Your task to perform on an android device: Open Google Image 0: 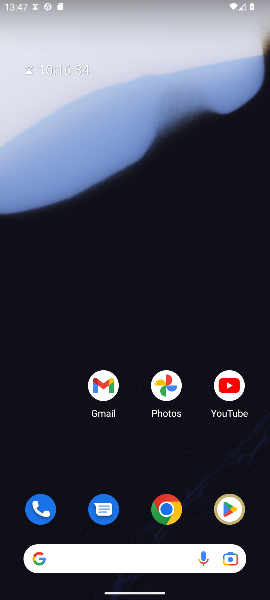
Step 0: press home button
Your task to perform on an android device: Open Google Image 1: 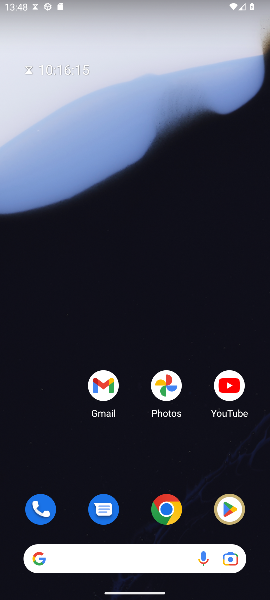
Step 1: drag from (127, 514) to (191, 173)
Your task to perform on an android device: Open Google Image 2: 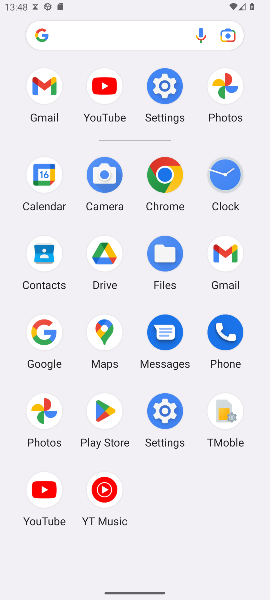
Step 2: click (42, 331)
Your task to perform on an android device: Open Google Image 3: 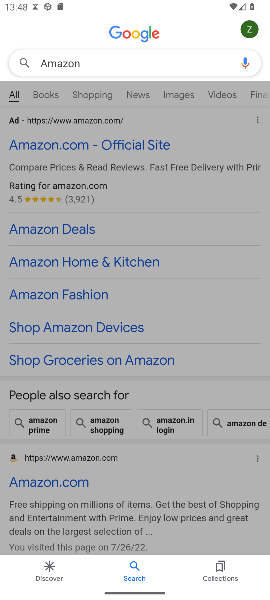
Step 3: click (102, 61)
Your task to perform on an android device: Open Google Image 4: 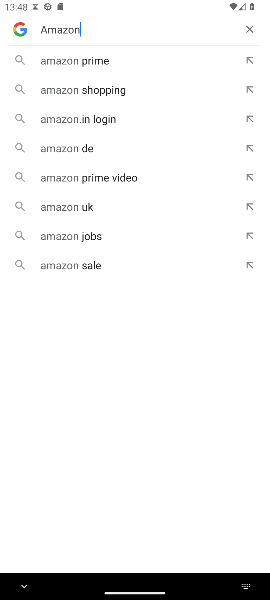
Step 4: click (247, 31)
Your task to perform on an android device: Open Google Image 5: 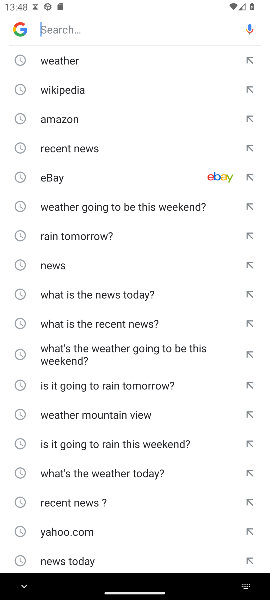
Step 5: task complete